Your task to perform on an android device: Search for Mexican restaurants on Maps Image 0: 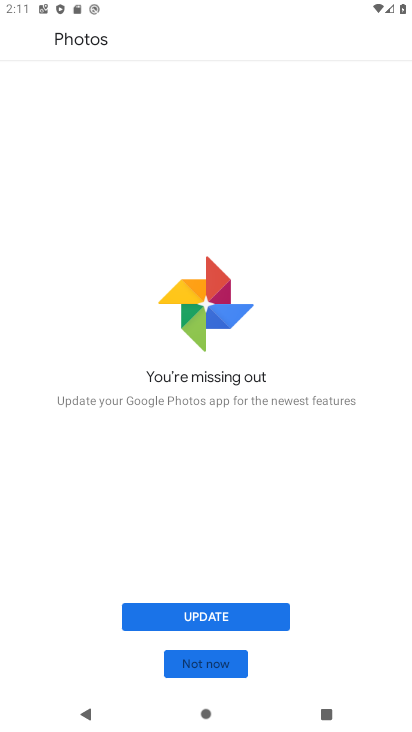
Step 0: press home button
Your task to perform on an android device: Search for Mexican restaurants on Maps Image 1: 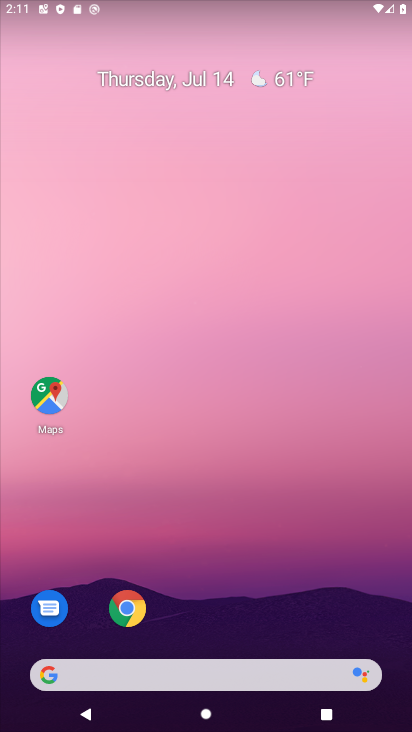
Step 1: drag from (182, 667) to (195, 328)
Your task to perform on an android device: Search for Mexican restaurants on Maps Image 2: 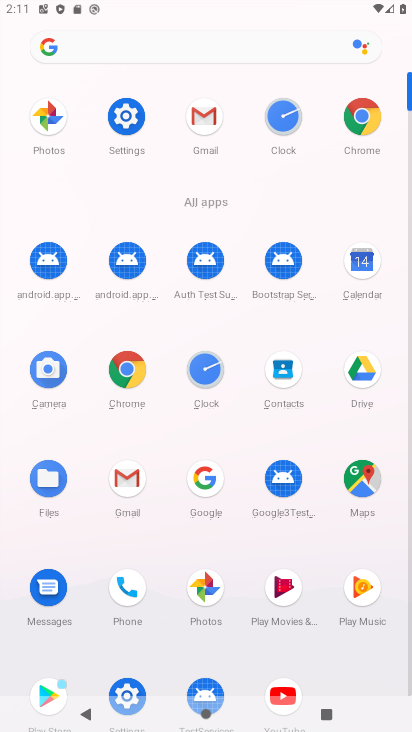
Step 2: click (367, 478)
Your task to perform on an android device: Search for Mexican restaurants on Maps Image 3: 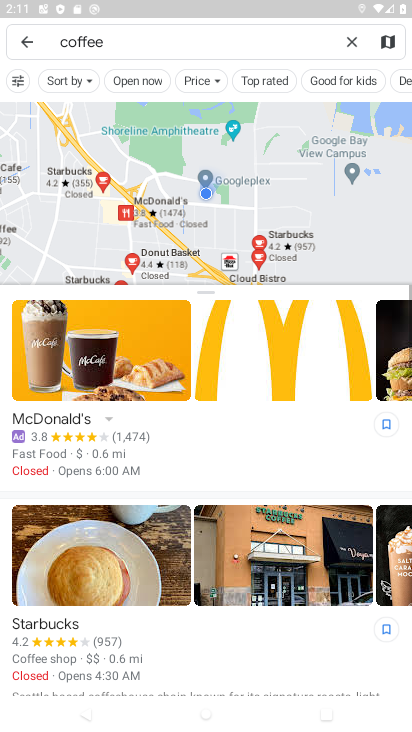
Step 3: click (350, 42)
Your task to perform on an android device: Search for Mexican restaurants on Maps Image 4: 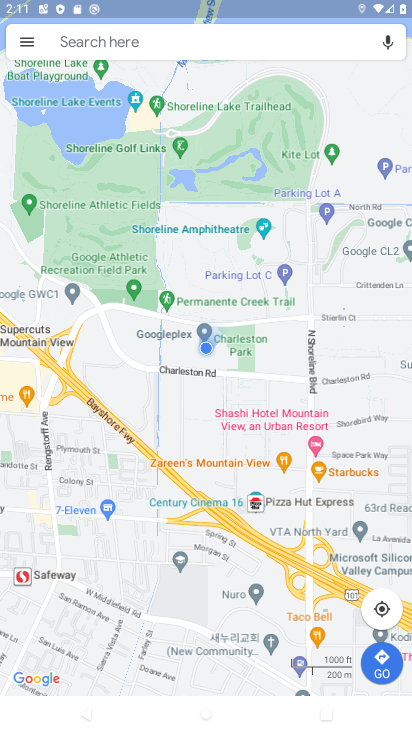
Step 4: click (119, 44)
Your task to perform on an android device: Search for Mexican restaurants on Maps Image 5: 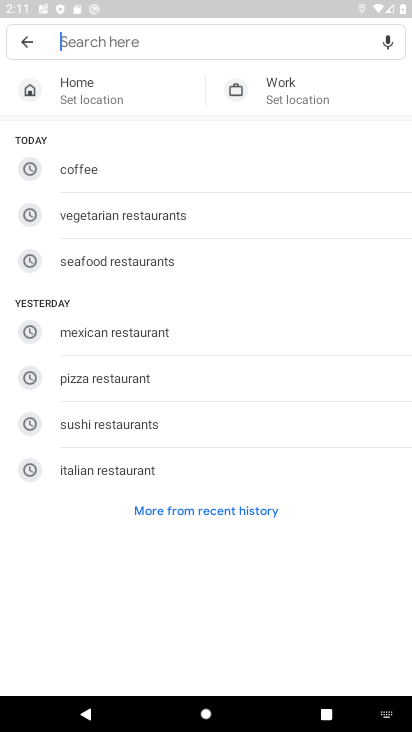
Step 5: click (71, 333)
Your task to perform on an android device: Search for Mexican restaurants on Maps Image 6: 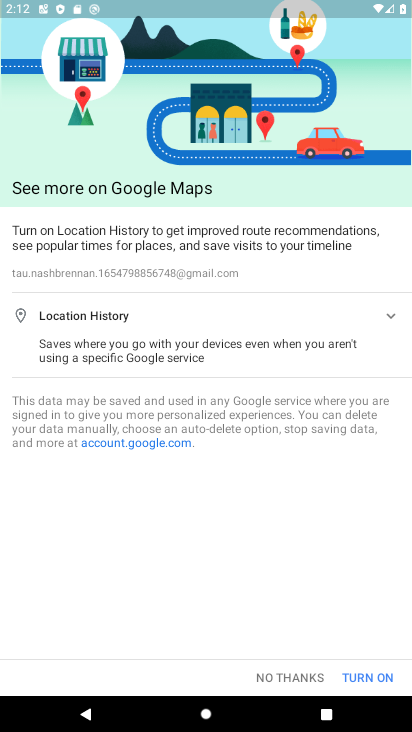
Step 6: click (353, 676)
Your task to perform on an android device: Search for Mexican restaurants on Maps Image 7: 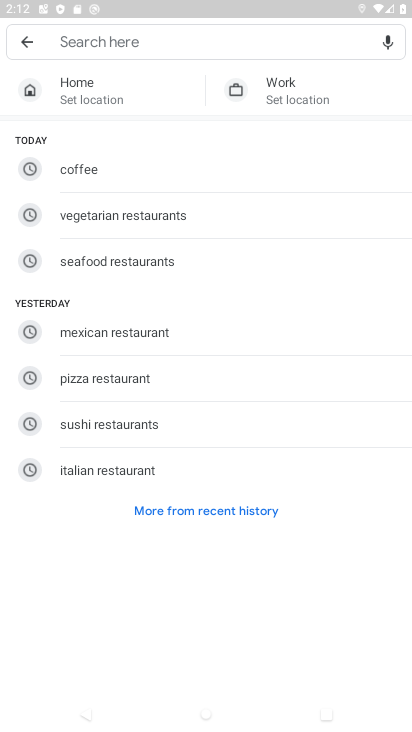
Step 7: click (74, 329)
Your task to perform on an android device: Search for Mexican restaurants on Maps Image 8: 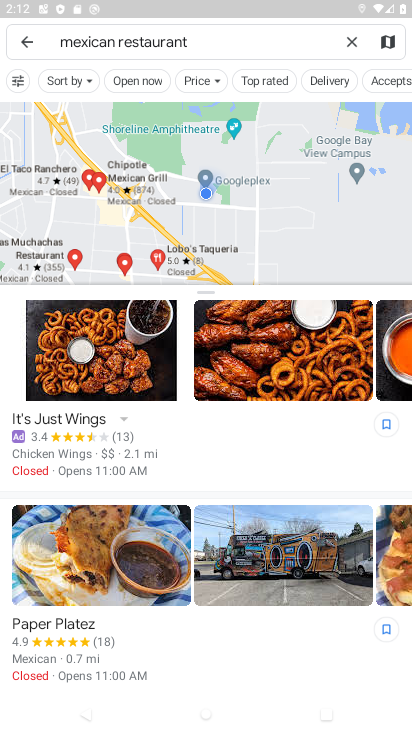
Step 8: task complete